Your task to perform on an android device: Open Youtube and go to the subscriptions tab Image 0: 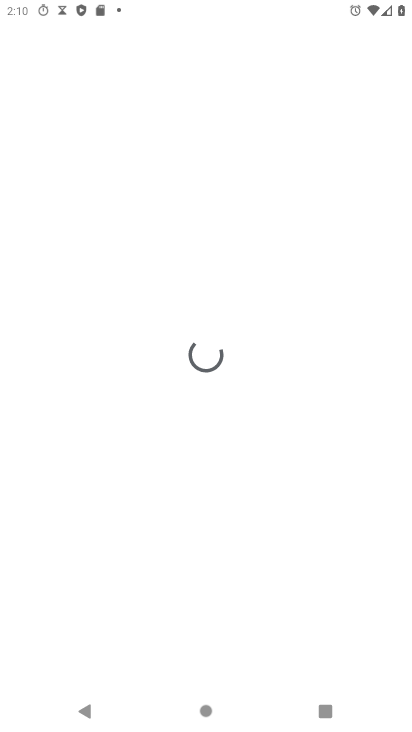
Step 0: press home button
Your task to perform on an android device: Open Youtube and go to the subscriptions tab Image 1: 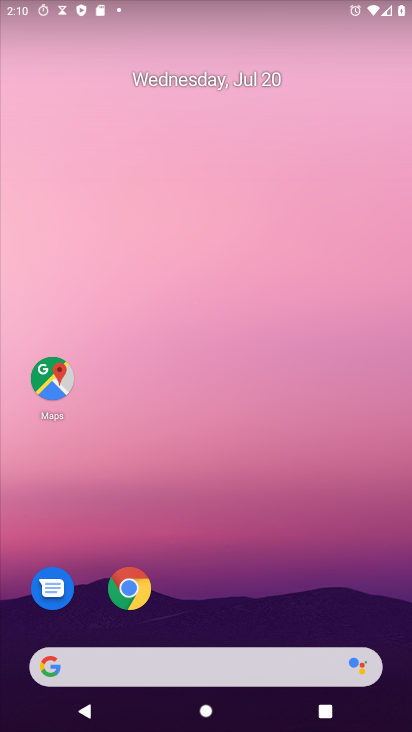
Step 1: drag from (195, 655) to (229, 28)
Your task to perform on an android device: Open Youtube and go to the subscriptions tab Image 2: 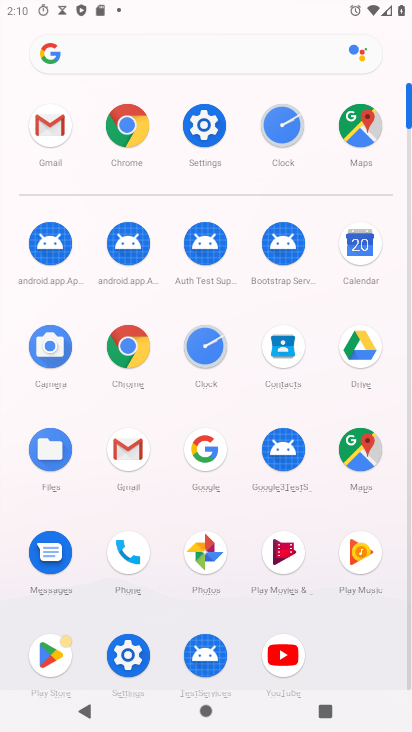
Step 2: click (286, 654)
Your task to perform on an android device: Open Youtube and go to the subscriptions tab Image 3: 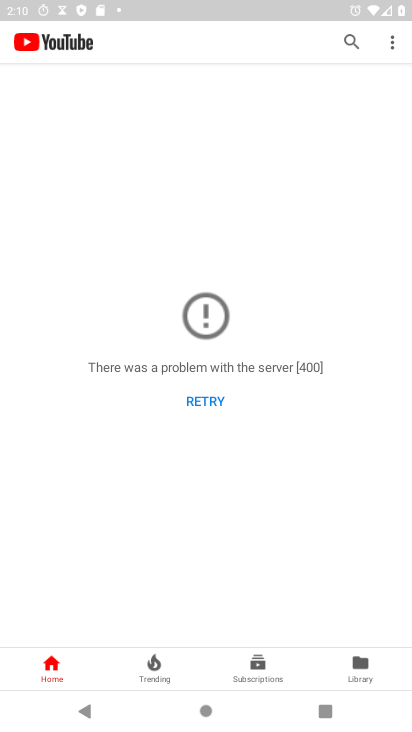
Step 3: click (255, 671)
Your task to perform on an android device: Open Youtube and go to the subscriptions tab Image 4: 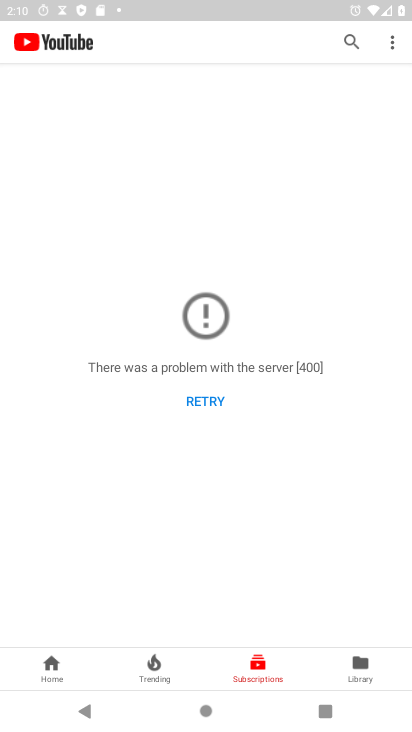
Step 4: task complete